Your task to perform on an android device: Open my contact list Image 0: 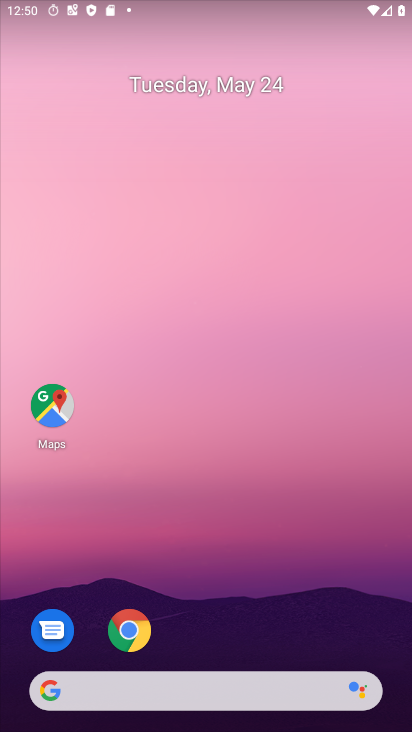
Step 0: drag from (216, 654) to (185, 26)
Your task to perform on an android device: Open my contact list Image 1: 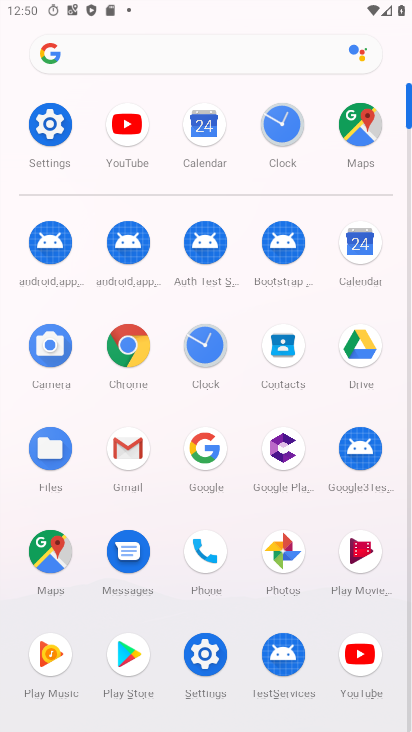
Step 1: click (292, 348)
Your task to perform on an android device: Open my contact list Image 2: 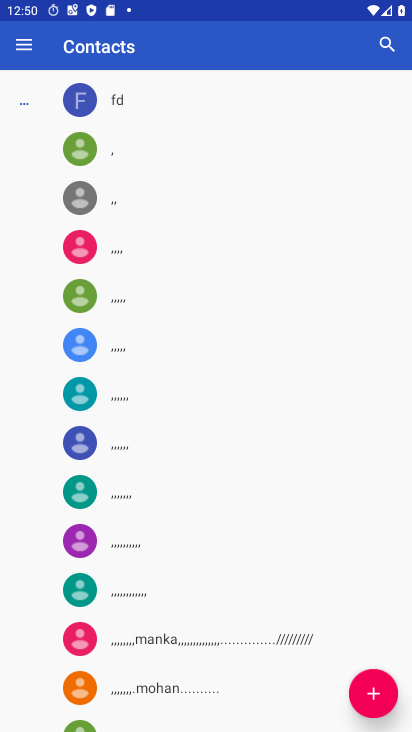
Step 2: task complete